Your task to perform on an android device: Open the phone app and click the voicemail tab. Image 0: 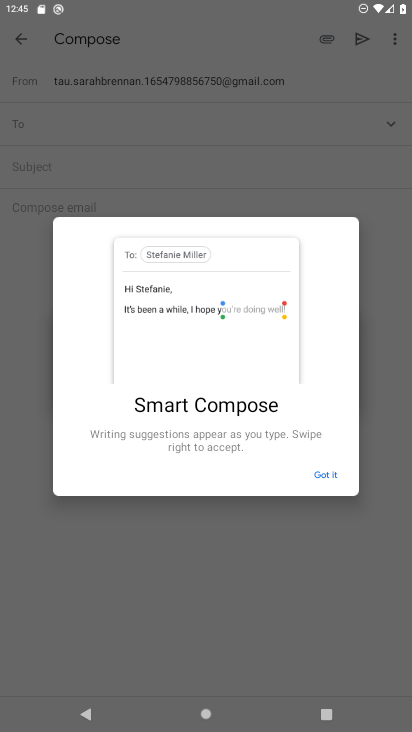
Step 0: press home button
Your task to perform on an android device: Open the phone app and click the voicemail tab. Image 1: 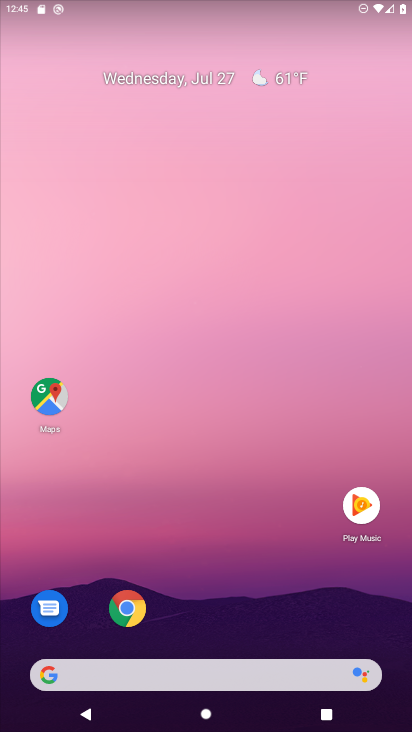
Step 1: drag from (313, 561) to (318, 122)
Your task to perform on an android device: Open the phone app and click the voicemail tab. Image 2: 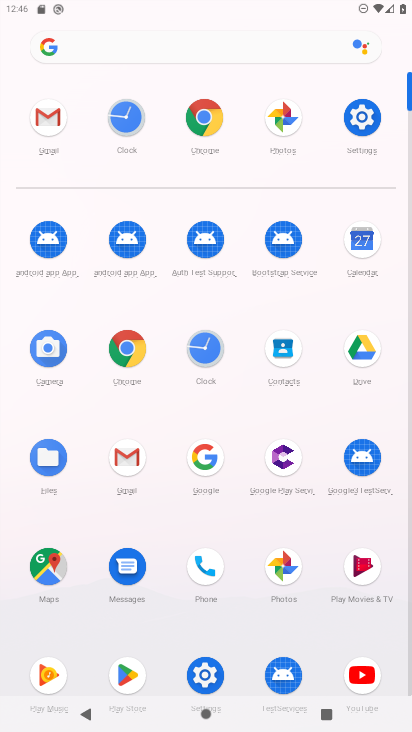
Step 2: click (203, 568)
Your task to perform on an android device: Open the phone app and click the voicemail tab. Image 3: 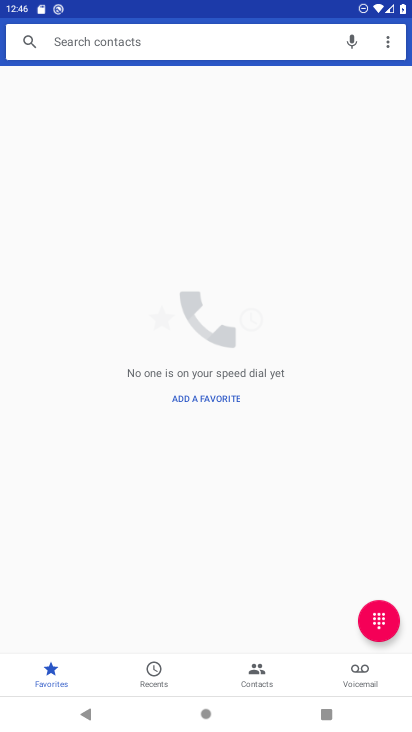
Step 3: click (349, 676)
Your task to perform on an android device: Open the phone app and click the voicemail tab. Image 4: 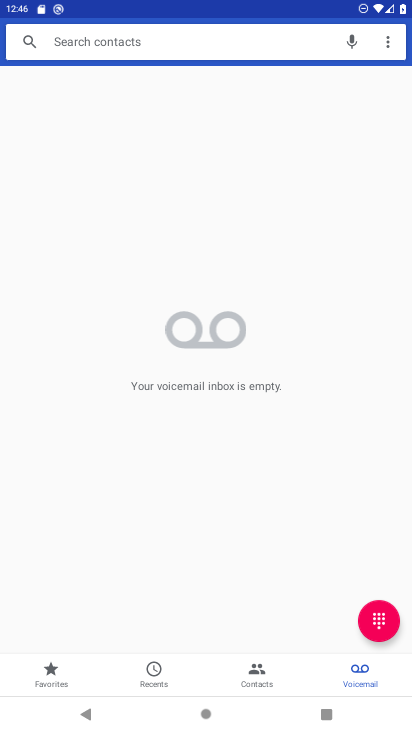
Step 4: task complete